Your task to perform on an android device: check the backup settings in the google photos Image 0: 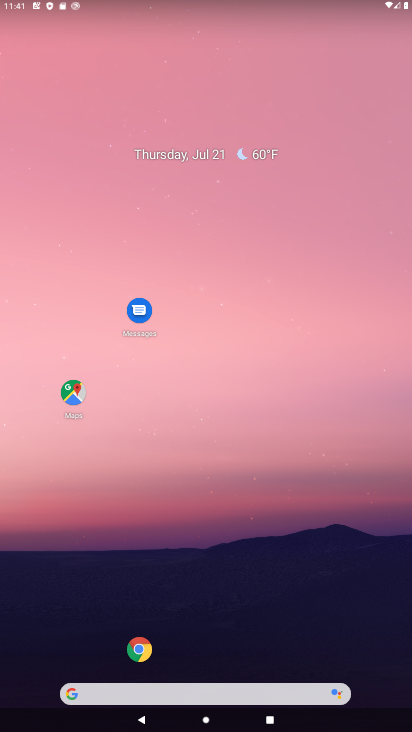
Step 0: drag from (59, 629) to (192, 188)
Your task to perform on an android device: check the backup settings in the google photos Image 1: 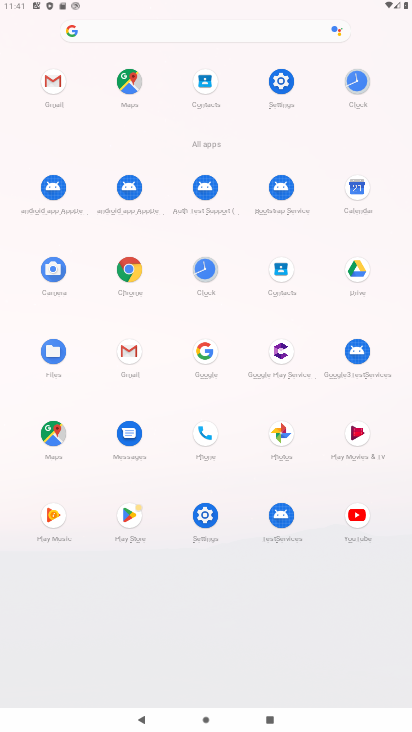
Step 1: click (277, 440)
Your task to perform on an android device: check the backup settings in the google photos Image 2: 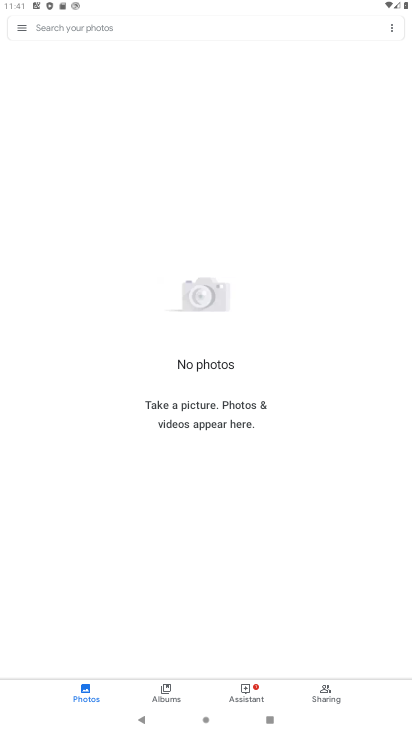
Step 2: click (29, 25)
Your task to perform on an android device: check the backup settings in the google photos Image 3: 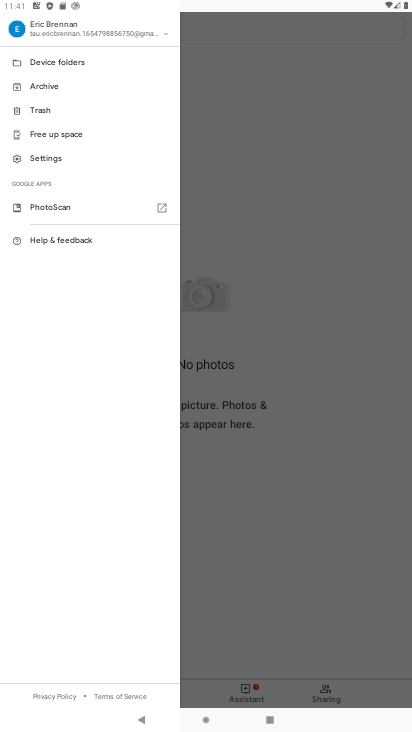
Step 3: click (40, 158)
Your task to perform on an android device: check the backup settings in the google photos Image 4: 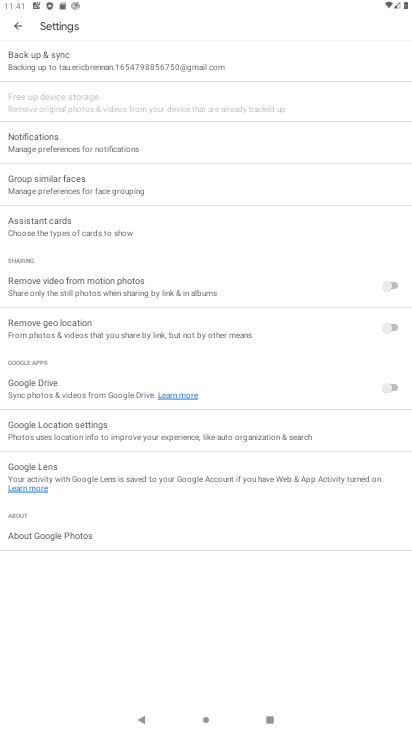
Step 4: click (47, 66)
Your task to perform on an android device: check the backup settings in the google photos Image 5: 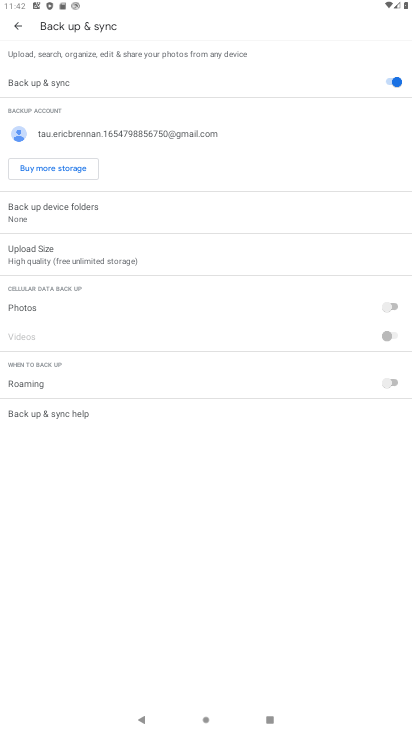
Step 5: task complete